Your task to perform on an android device: allow cookies in the chrome app Image 0: 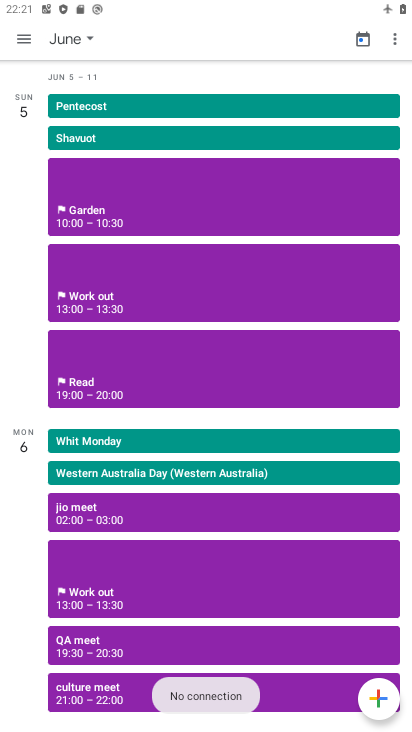
Step 0: drag from (241, 624) to (155, 199)
Your task to perform on an android device: allow cookies in the chrome app Image 1: 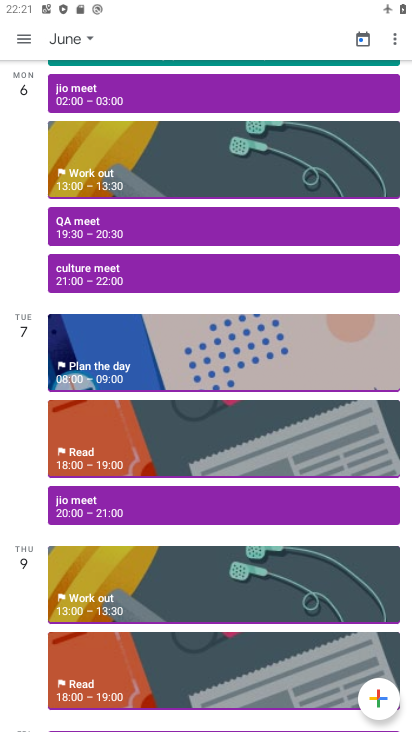
Step 1: press home button
Your task to perform on an android device: allow cookies in the chrome app Image 2: 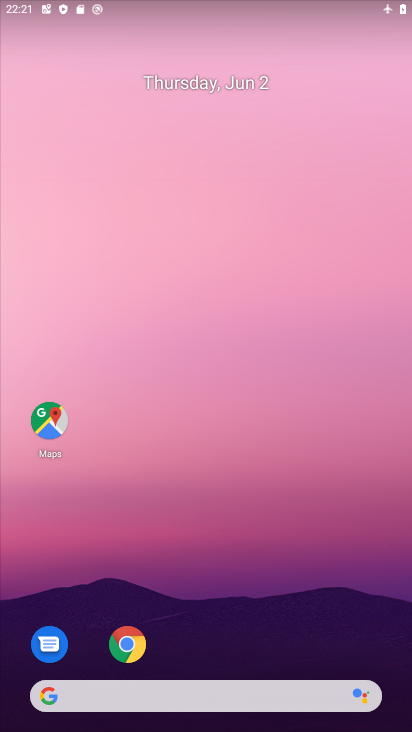
Step 2: click (123, 649)
Your task to perform on an android device: allow cookies in the chrome app Image 3: 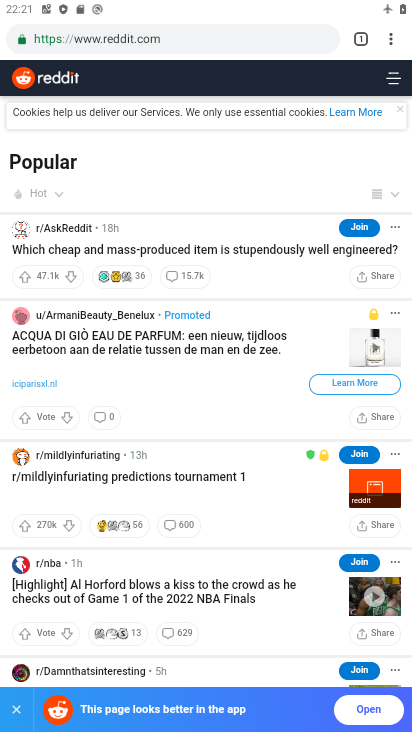
Step 3: click (391, 41)
Your task to perform on an android device: allow cookies in the chrome app Image 4: 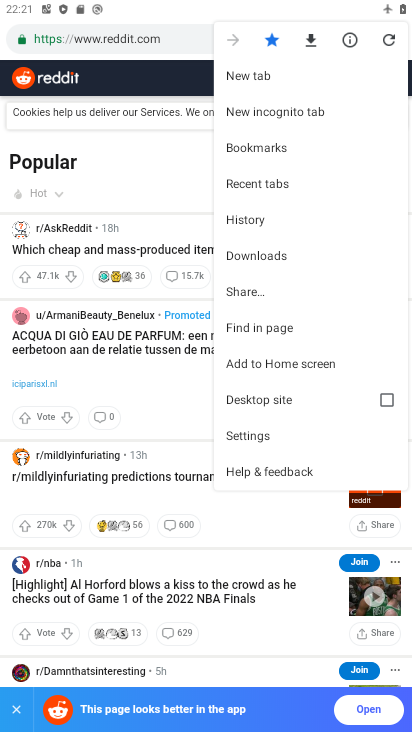
Step 4: click (258, 438)
Your task to perform on an android device: allow cookies in the chrome app Image 5: 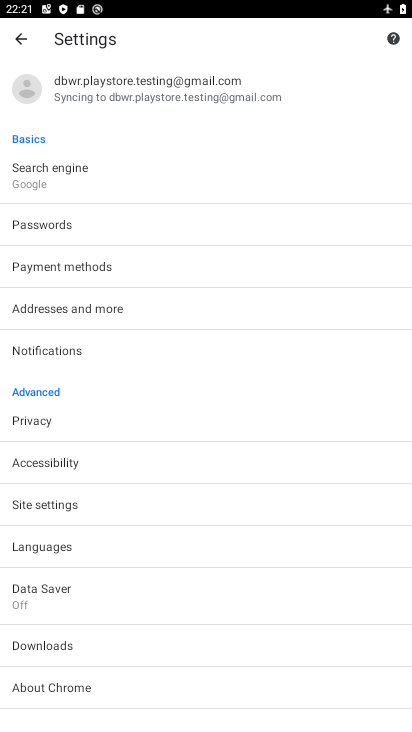
Step 5: click (87, 502)
Your task to perform on an android device: allow cookies in the chrome app Image 6: 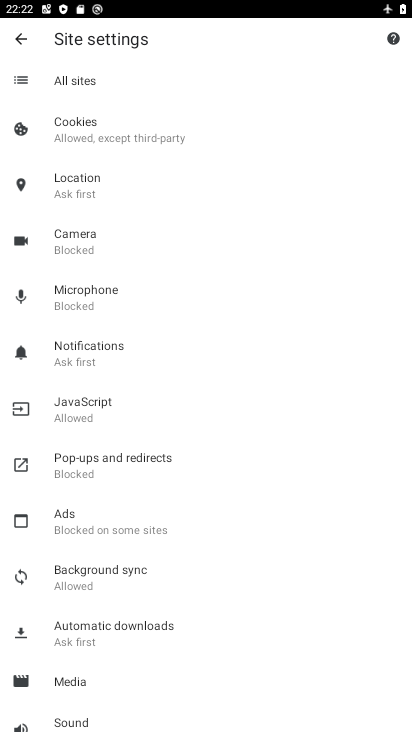
Step 6: click (87, 127)
Your task to perform on an android device: allow cookies in the chrome app Image 7: 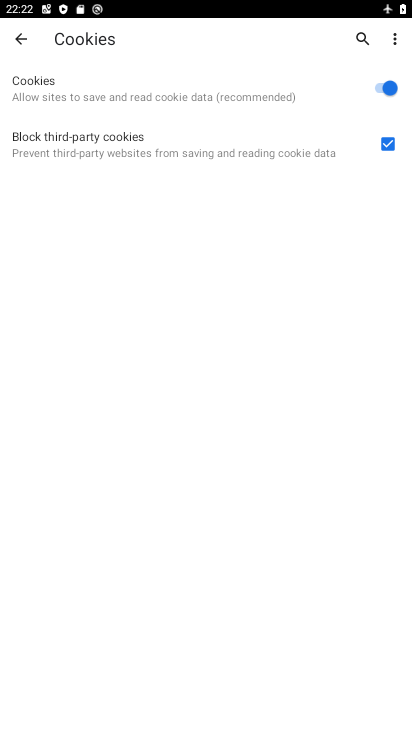
Step 7: task complete